Your task to perform on an android device: turn off location history Image 0: 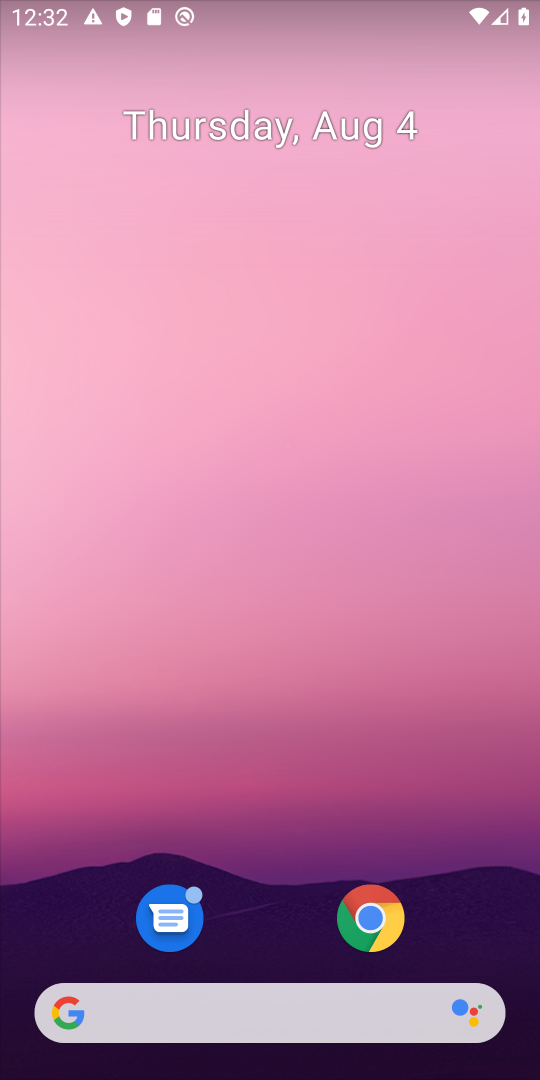
Step 0: drag from (317, 415) to (327, 251)
Your task to perform on an android device: turn off location history Image 1: 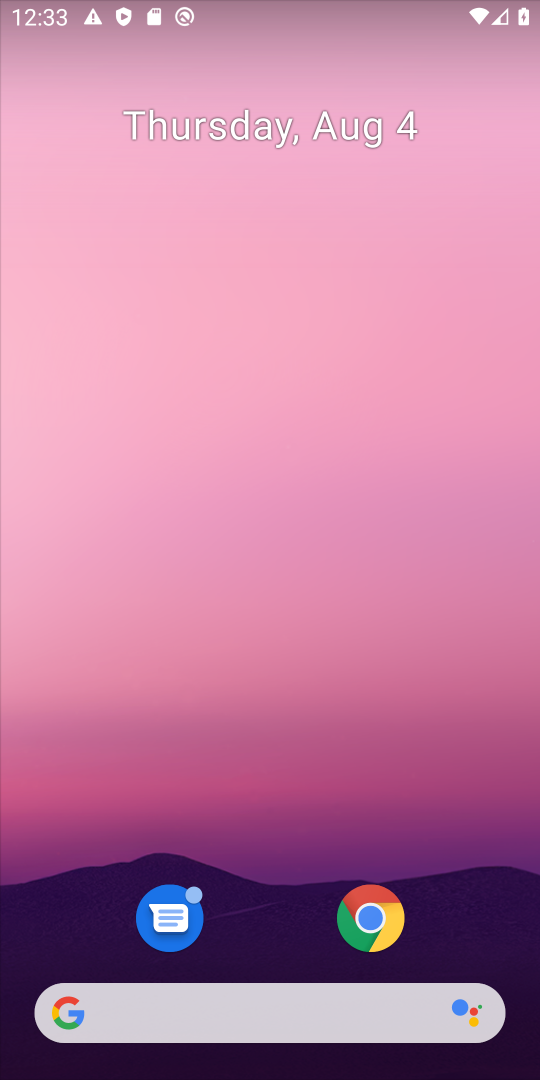
Step 1: drag from (271, 923) to (268, 242)
Your task to perform on an android device: turn off location history Image 2: 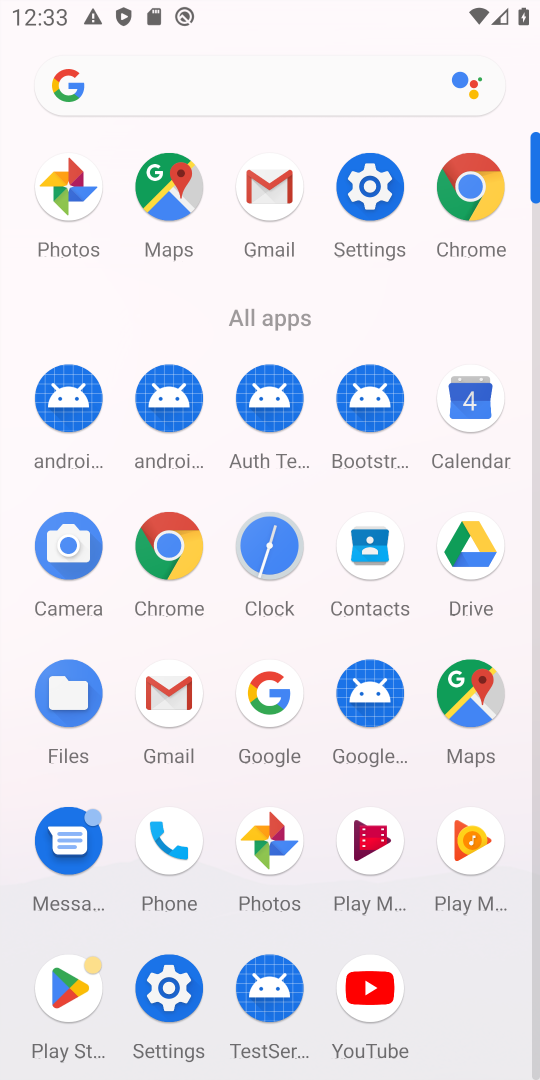
Step 2: click (349, 172)
Your task to perform on an android device: turn off location history Image 3: 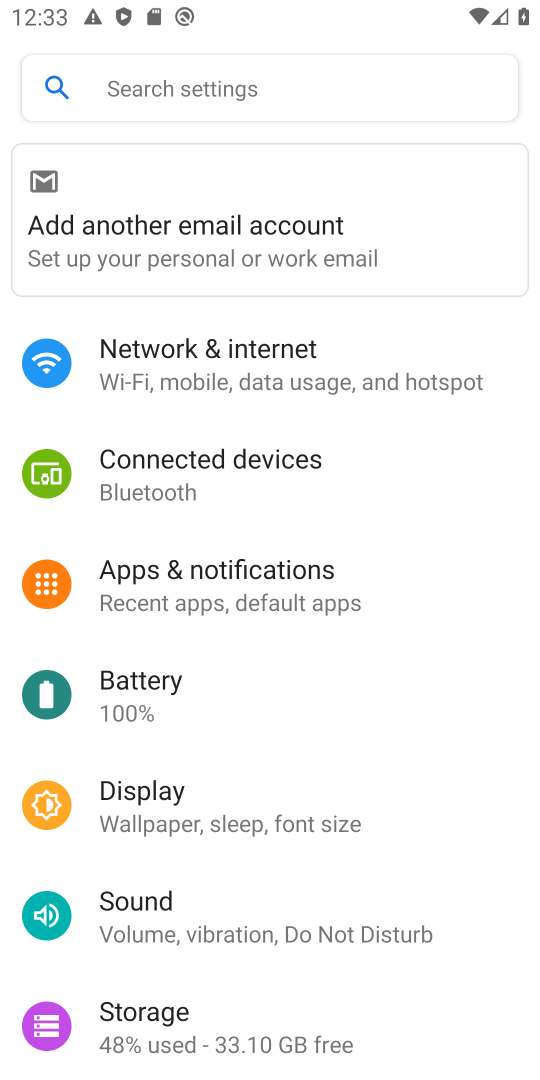
Step 3: drag from (277, 917) to (269, 546)
Your task to perform on an android device: turn off location history Image 4: 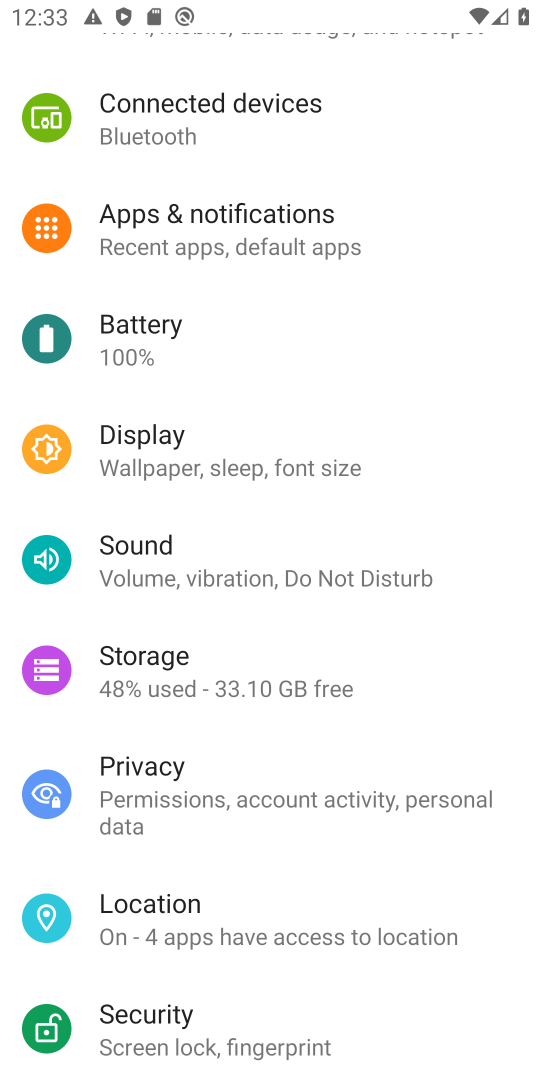
Step 4: click (225, 939)
Your task to perform on an android device: turn off location history Image 5: 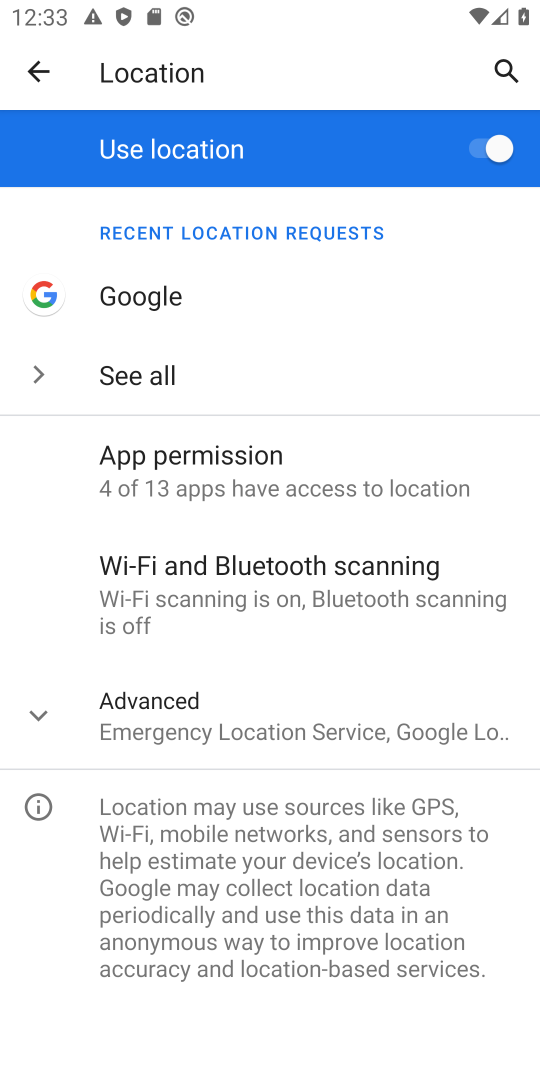
Step 5: click (328, 700)
Your task to perform on an android device: turn off location history Image 6: 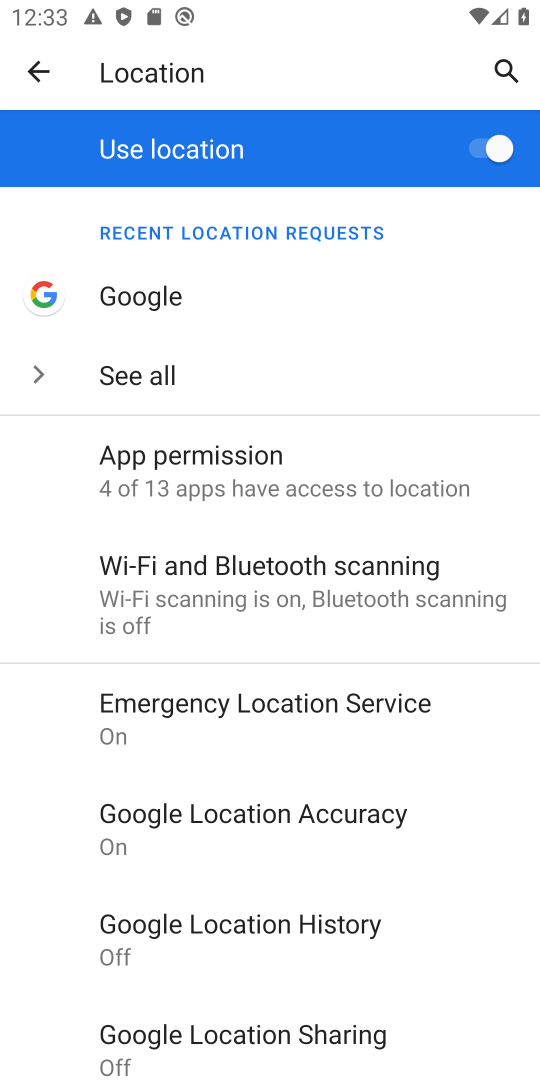
Step 6: click (359, 951)
Your task to perform on an android device: turn off location history Image 7: 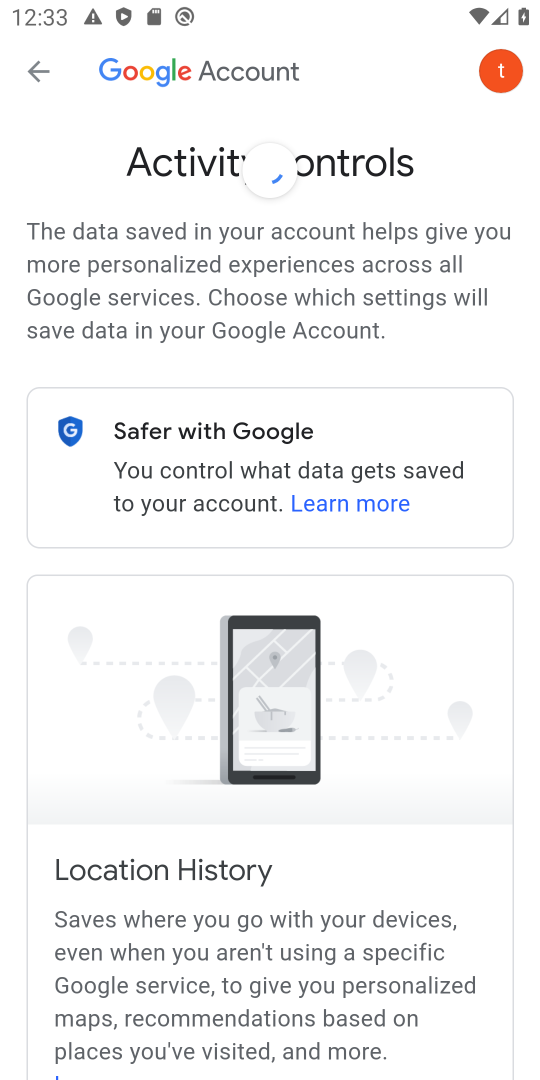
Step 7: drag from (255, 875) to (294, 399)
Your task to perform on an android device: turn off location history Image 8: 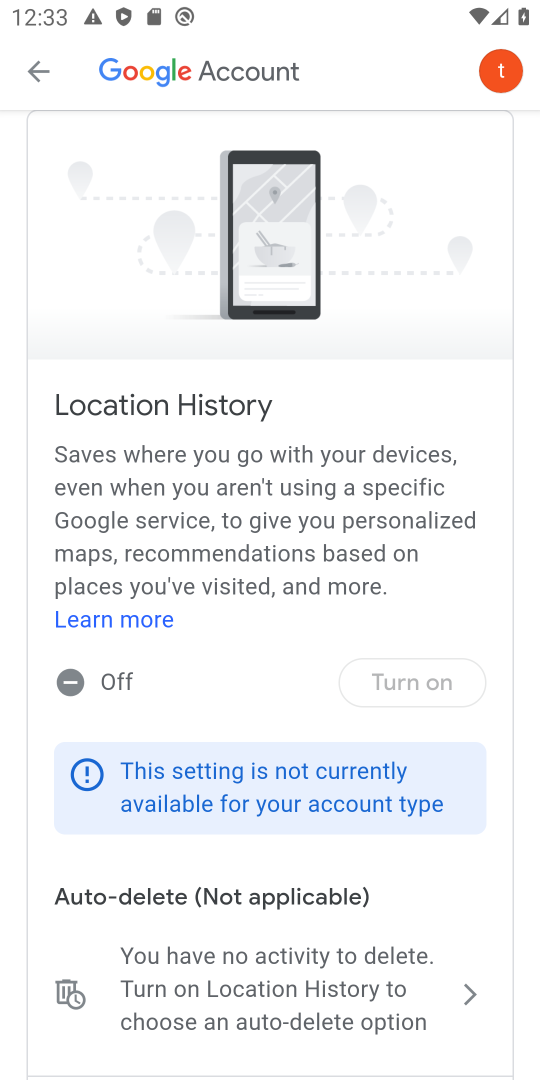
Step 8: click (104, 690)
Your task to perform on an android device: turn off location history Image 9: 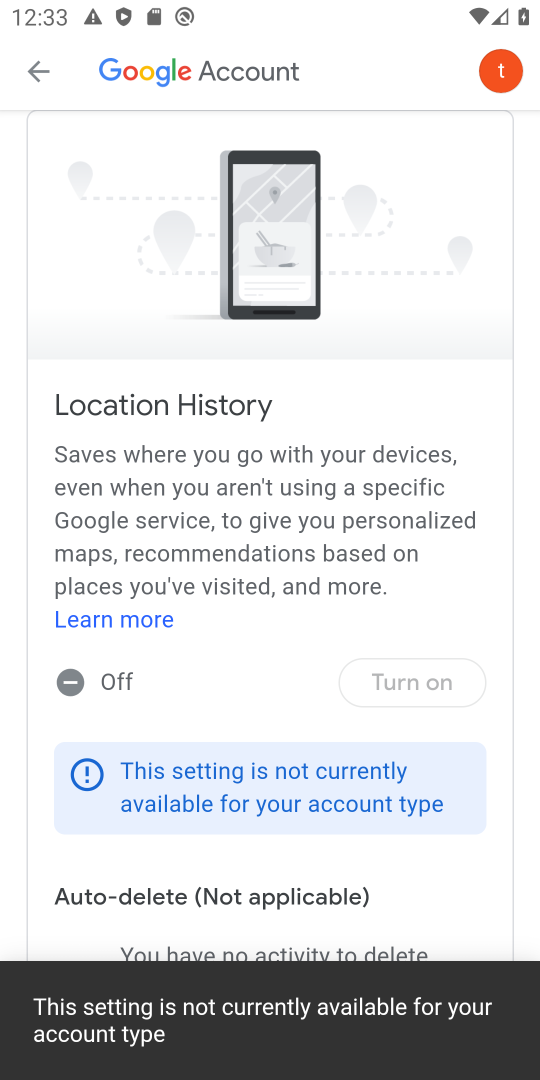
Step 9: click (96, 684)
Your task to perform on an android device: turn off location history Image 10: 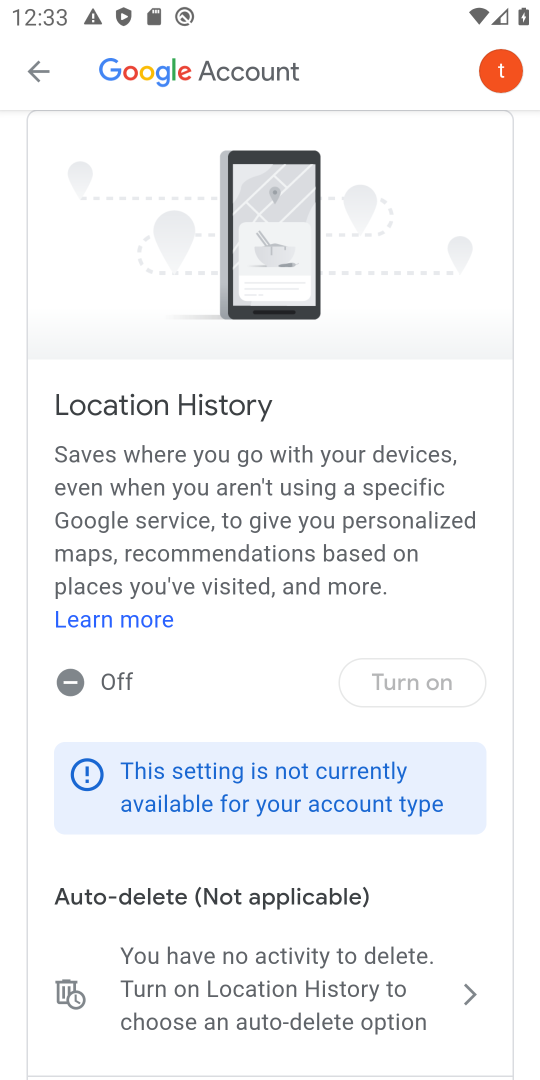
Step 10: task complete